Your task to perform on an android device: Go to Reddit.com Image 0: 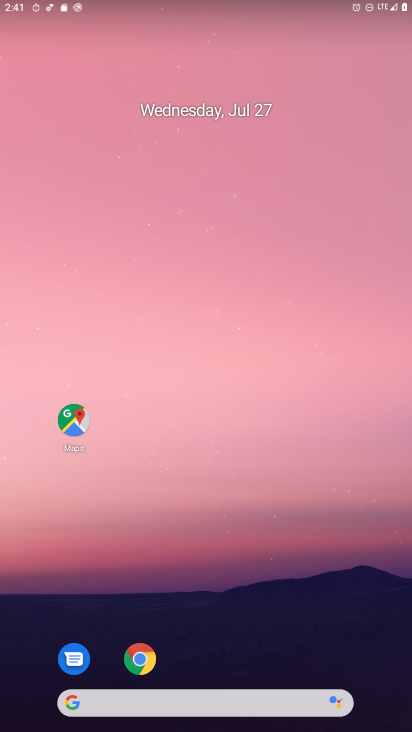
Step 0: drag from (259, 582) to (266, 40)
Your task to perform on an android device: Go to Reddit.com Image 1: 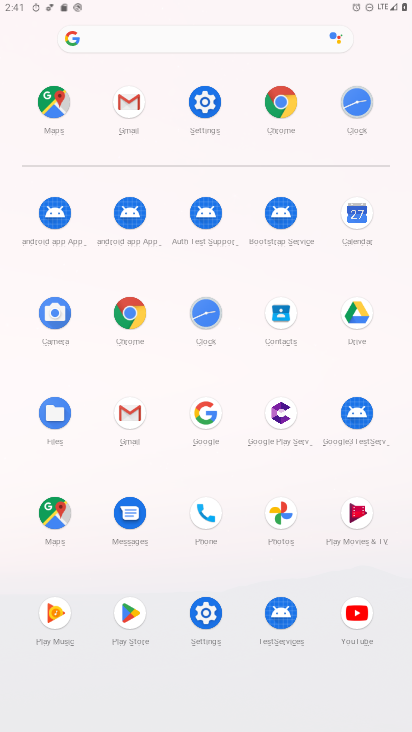
Step 1: click (281, 105)
Your task to perform on an android device: Go to Reddit.com Image 2: 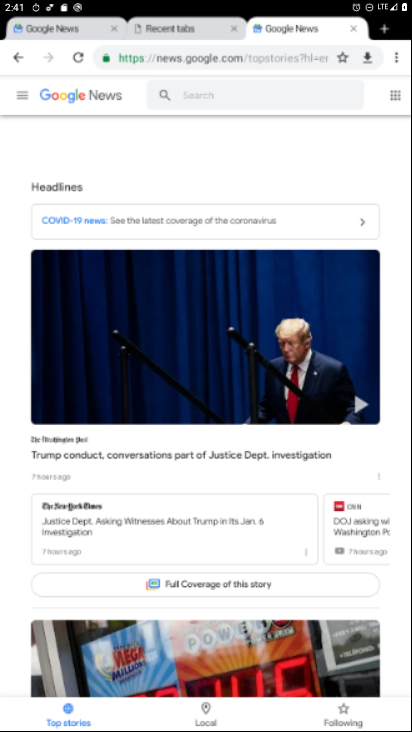
Step 2: click (238, 59)
Your task to perform on an android device: Go to Reddit.com Image 3: 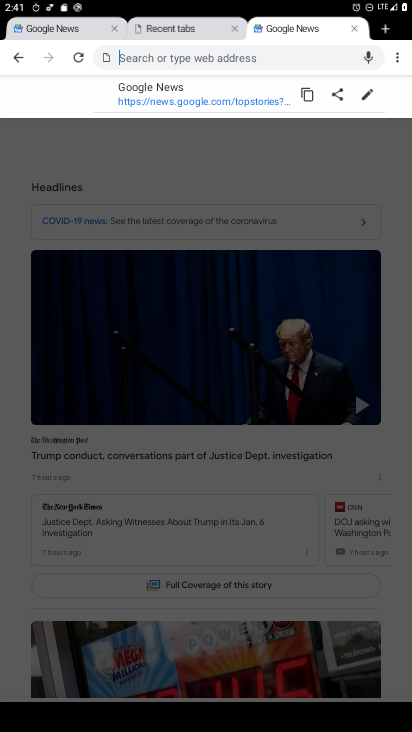
Step 3: type "reddit.com"
Your task to perform on an android device: Go to Reddit.com Image 4: 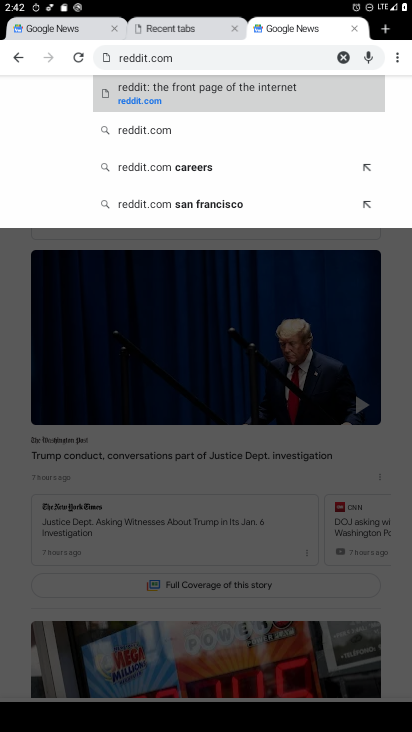
Step 4: click (164, 91)
Your task to perform on an android device: Go to Reddit.com Image 5: 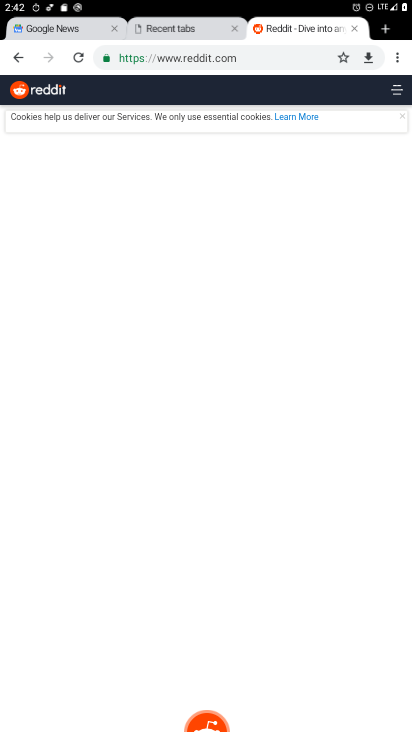
Step 5: task complete